Your task to perform on an android device: Set the phone to "Do not disturb". Image 0: 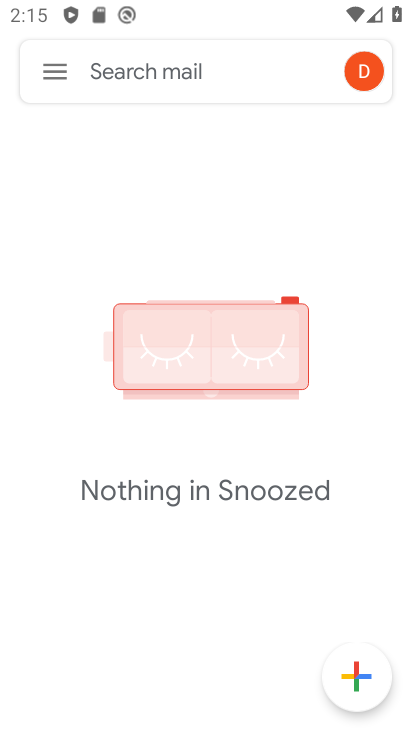
Step 0: press home button
Your task to perform on an android device: Set the phone to "Do not disturb". Image 1: 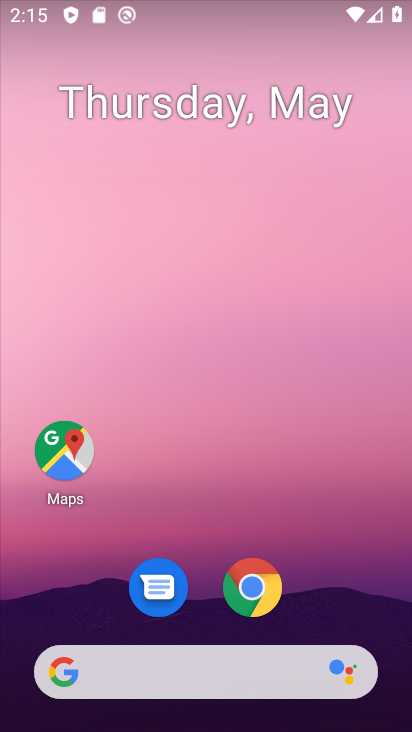
Step 1: drag from (254, 8) to (239, 470)
Your task to perform on an android device: Set the phone to "Do not disturb". Image 2: 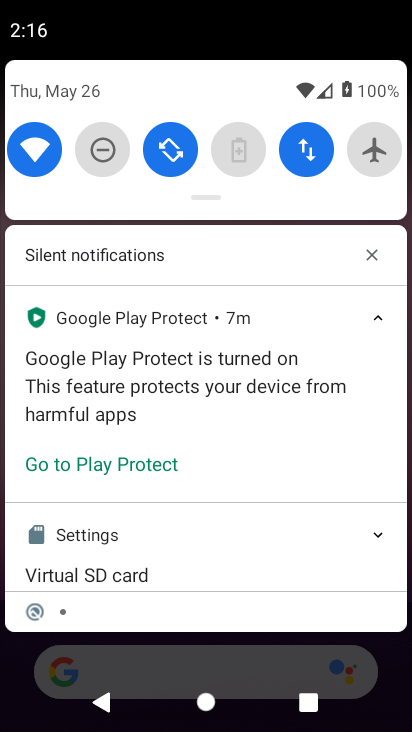
Step 2: click (100, 145)
Your task to perform on an android device: Set the phone to "Do not disturb". Image 3: 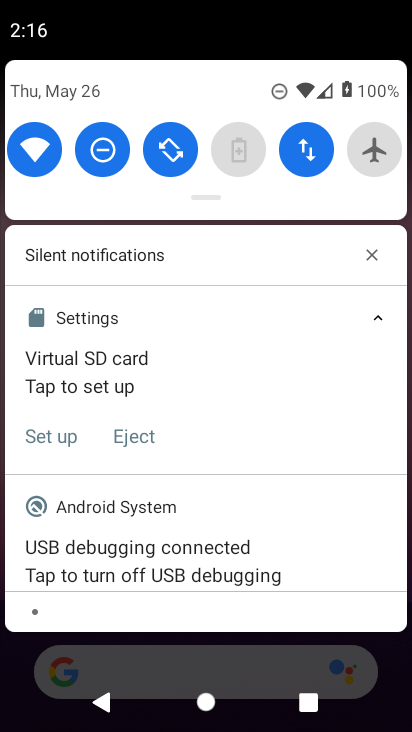
Step 3: task complete